Your task to perform on an android device: refresh tabs in the chrome app Image 0: 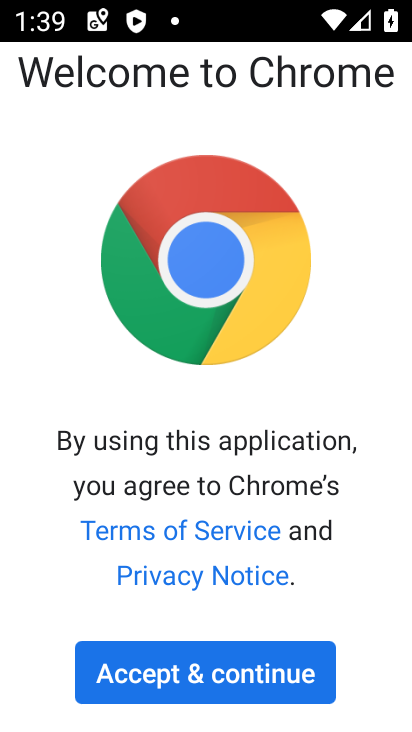
Step 0: click (246, 661)
Your task to perform on an android device: refresh tabs in the chrome app Image 1: 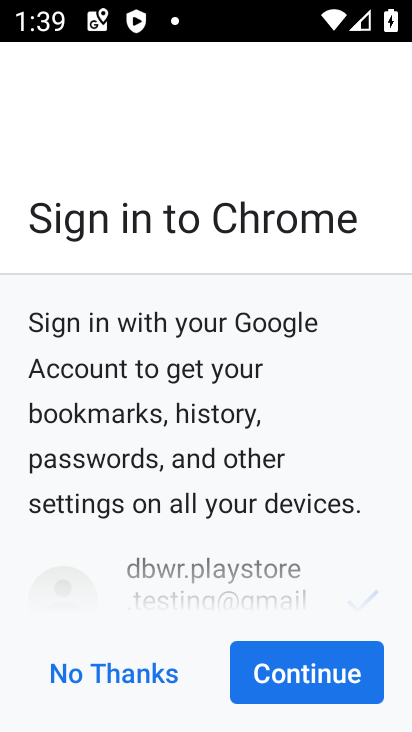
Step 1: click (256, 678)
Your task to perform on an android device: refresh tabs in the chrome app Image 2: 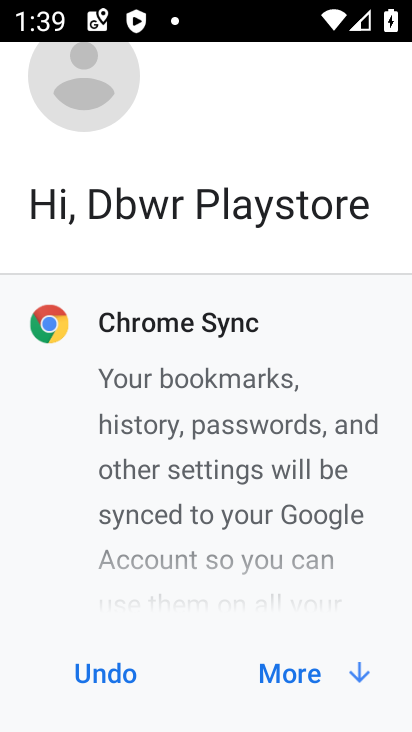
Step 2: click (259, 681)
Your task to perform on an android device: refresh tabs in the chrome app Image 3: 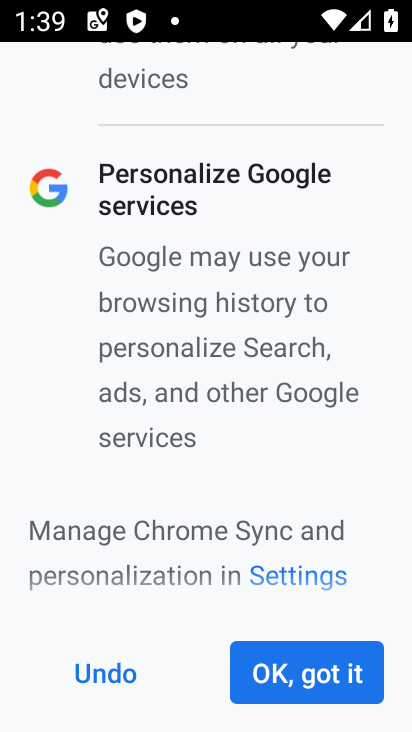
Step 3: click (259, 681)
Your task to perform on an android device: refresh tabs in the chrome app Image 4: 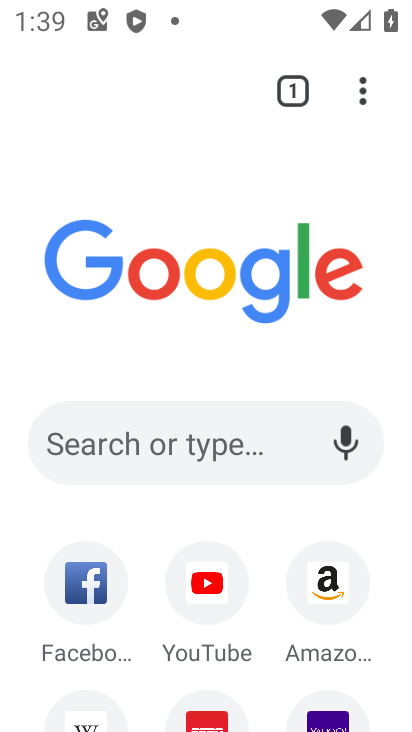
Step 4: click (366, 103)
Your task to perform on an android device: refresh tabs in the chrome app Image 5: 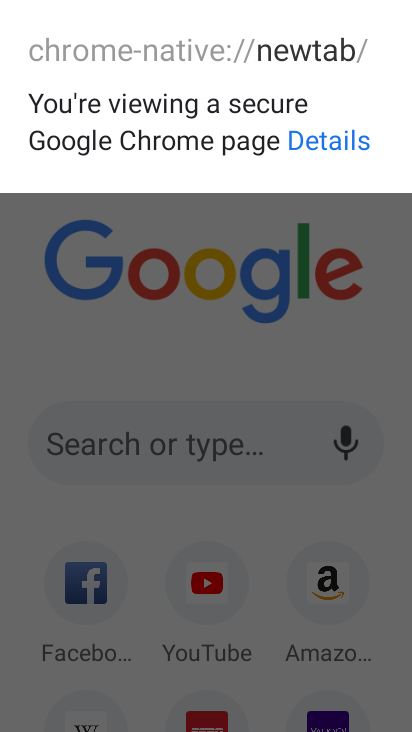
Step 5: click (251, 297)
Your task to perform on an android device: refresh tabs in the chrome app Image 6: 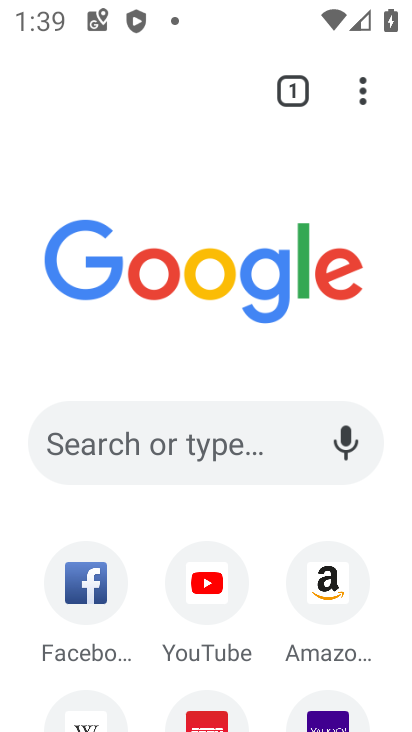
Step 6: click (358, 76)
Your task to perform on an android device: refresh tabs in the chrome app Image 7: 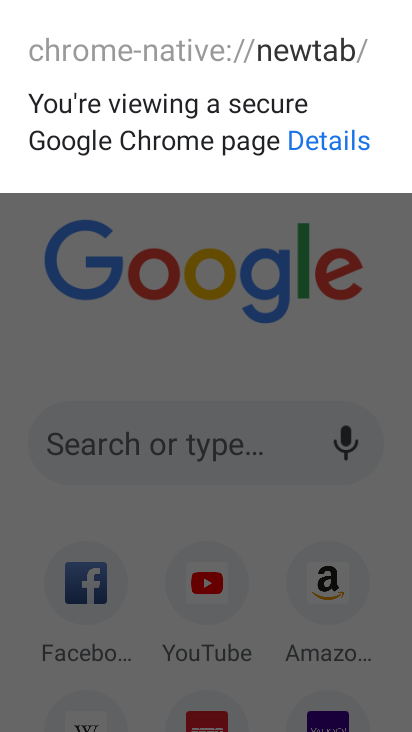
Step 7: click (213, 341)
Your task to perform on an android device: refresh tabs in the chrome app Image 8: 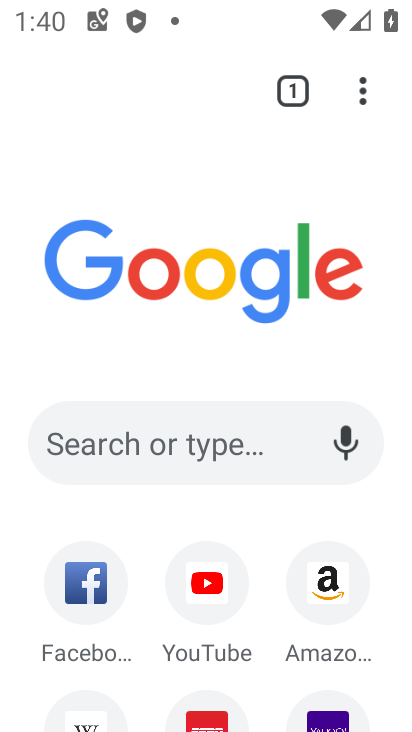
Step 8: click (365, 96)
Your task to perform on an android device: refresh tabs in the chrome app Image 9: 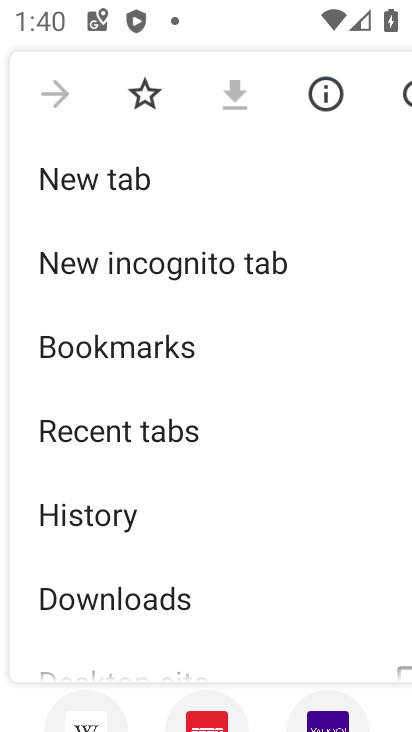
Step 9: drag from (383, 96) to (120, 97)
Your task to perform on an android device: refresh tabs in the chrome app Image 10: 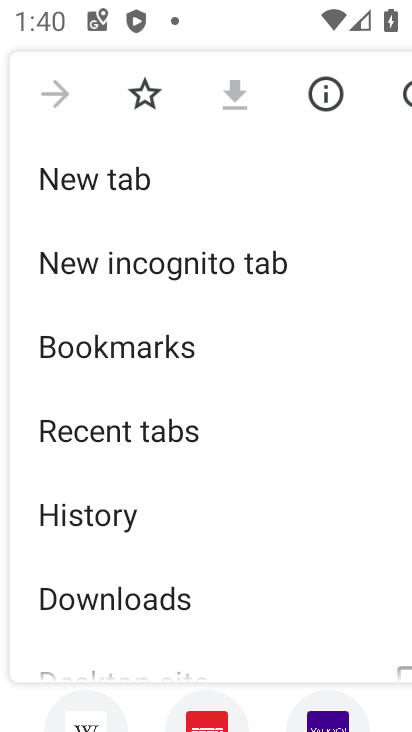
Step 10: click (410, 105)
Your task to perform on an android device: refresh tabs in the chrome app Image 11: 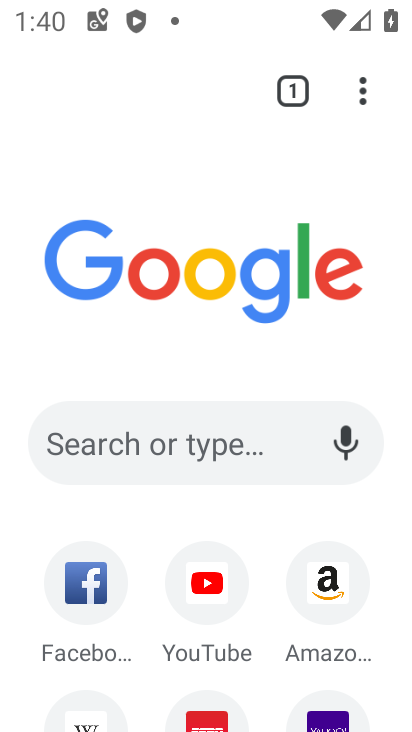
Step 11: task complete